Your task to perform on an android device: turn on translation in the chrome app Image 0: 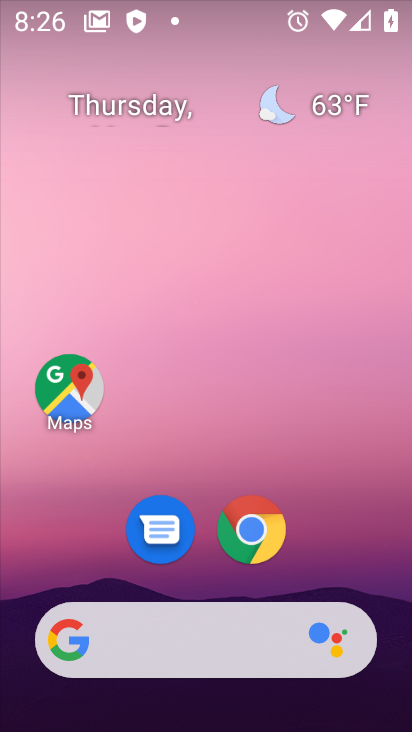
Step 0: click (244, 547)
Your task to perform on an android device: turn on translation in the chrome app Image 1: 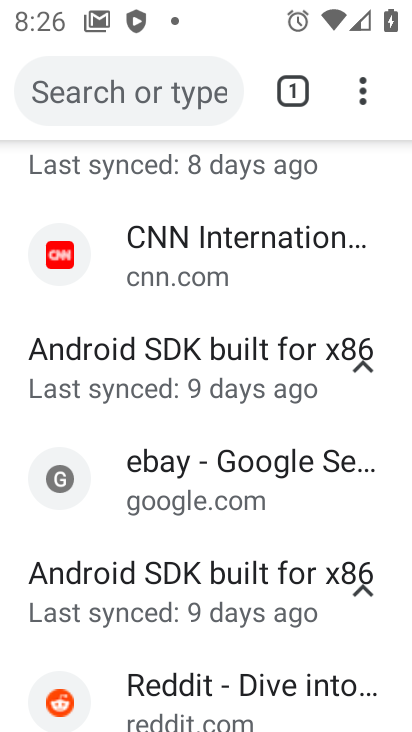
Step 1: click (364, 85)
Your task to perform on an android device: turn on translation in the chrome app Image 2: 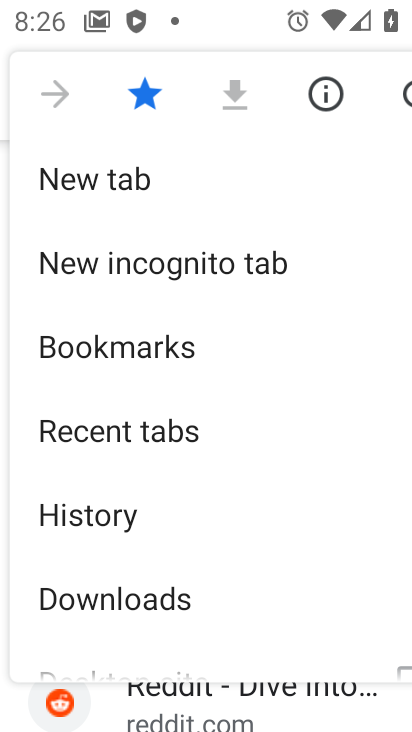
Step 2: drag from (134, 589) to (166, 282)
Your task to perform on an android device: turn on translation in the chrome app Image 3: 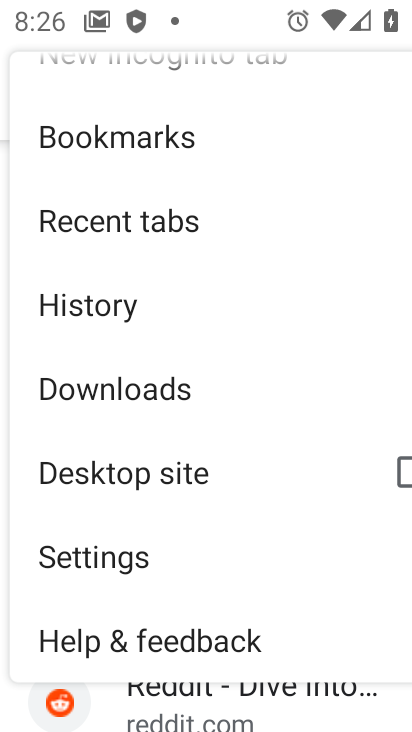
Step 3: click (87, 558)
Your task to perform on an android device: turn on translation in the chrome app Image 4: 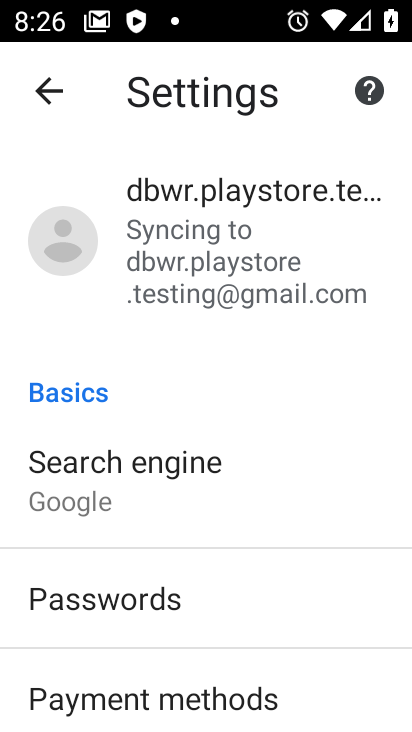
Step 4: drag from (179, 629) to (203, 310)
Your task to perform on an android device: turn on translation in the chrome app Image 5: 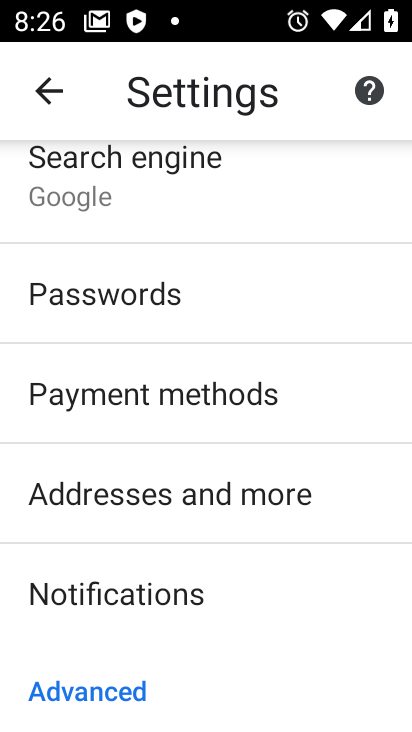
Step 5: drag from (156, 628) to (209, 335)
Your task to perform on an android device: turn on translation in the chrome app Image 6: 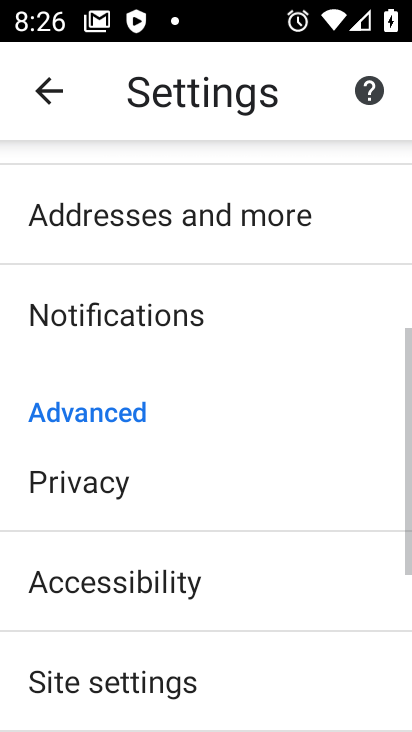
Step 6: drag from (185, 643) to (211, 349)
Your task to perform on an android device: turn on translation in the chrome app Image 7: 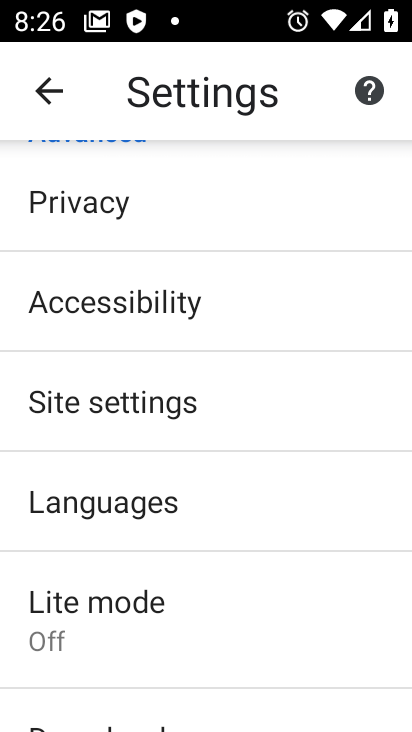
Step 7: click (131, 507)
Your task to perform on an android device: turn on translation in the chrome app Image 8: 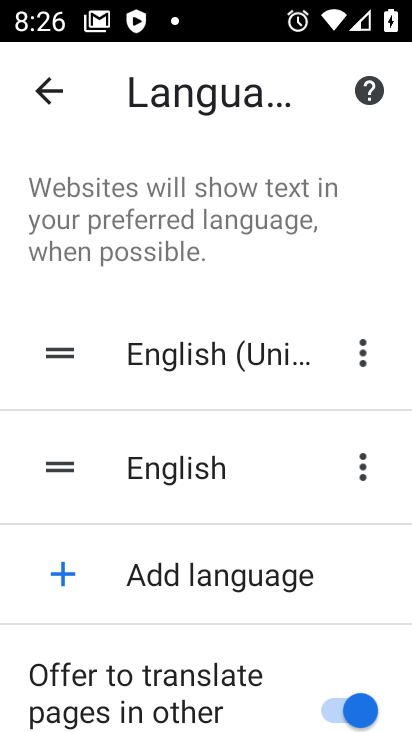
Step 8: task complete